Your task to perform on an android device: Show me productivity apps on the Play Store Image 0: 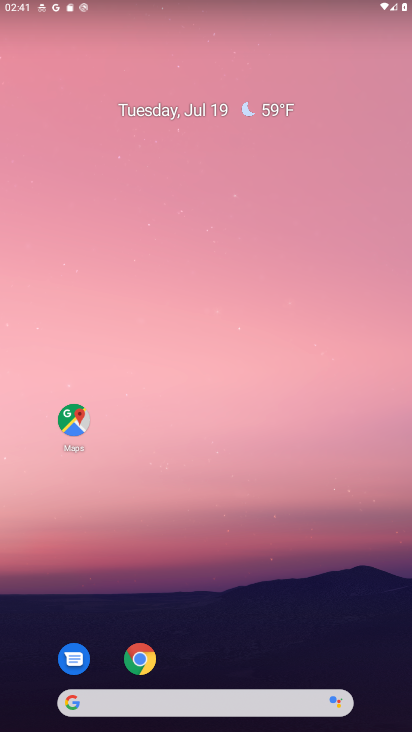
Step 0: drag from (174, 683) to (218, 61)
Your task to perform on an android device: Show me productivity apps on the Play Store Image 1: 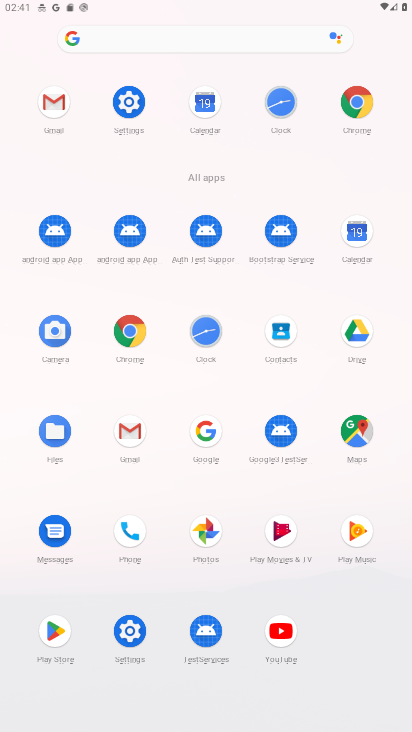
Step 1: click (55, 626)
Your task to perform on an android device: Show me productivity apps on the Play Store Image 2: 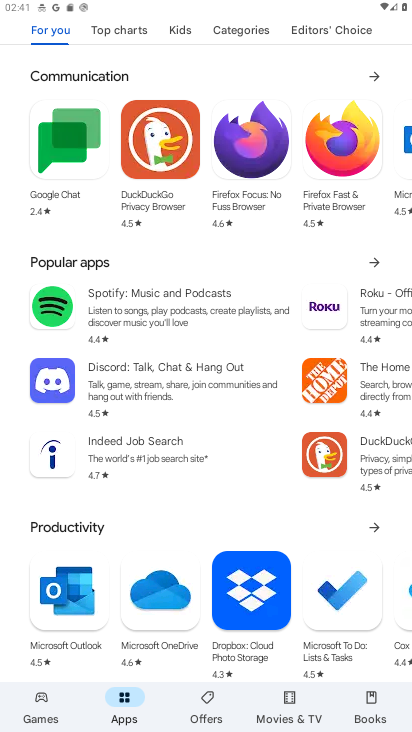
Step 2: task complete